Your task to perform on an android device: Open calendar and show me the second week of next month Image 0: 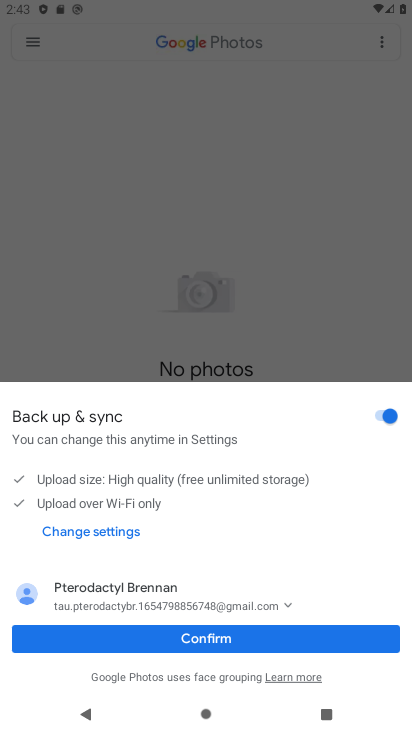
Step 0: press home button
Your task to perform on an android device: Open calendar and show me the second week of next month Image 1: 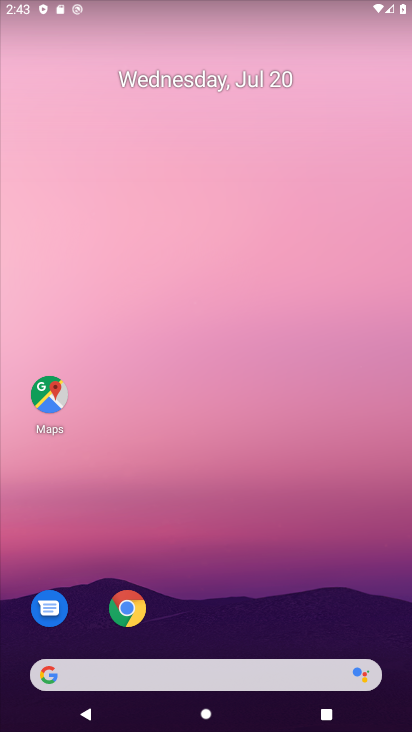
Step 1: drag from (223, 568) to (241, 34)
Your task to perform on an android device: Open calendar and show me the second week of next month Image 2: 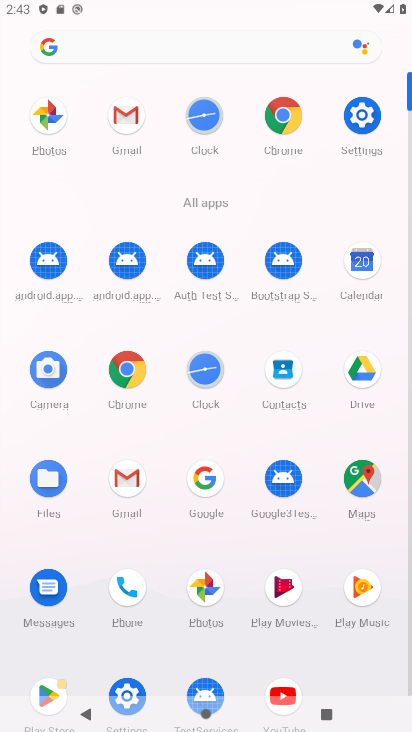
Step 2: click (367, 262)
Your task to perform on an android device: Open calendar and show me the second week of next month Image 3: 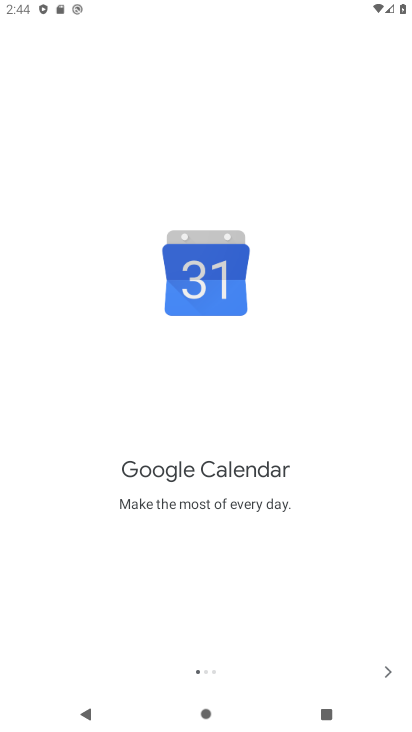
Step 3: click (385, 674)
Your task to perform on an android device: Open calendar and show me the second week of next month Image 4: 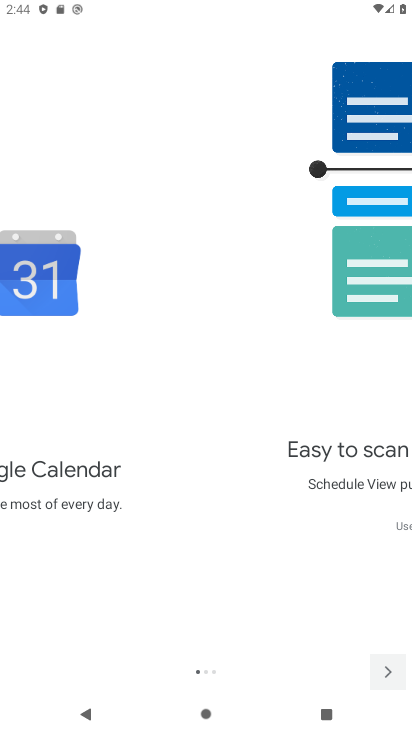
Step 4: click (385, 674)
Your task to perform on an android device: Open calendar and show me the second week of next month Image 5: 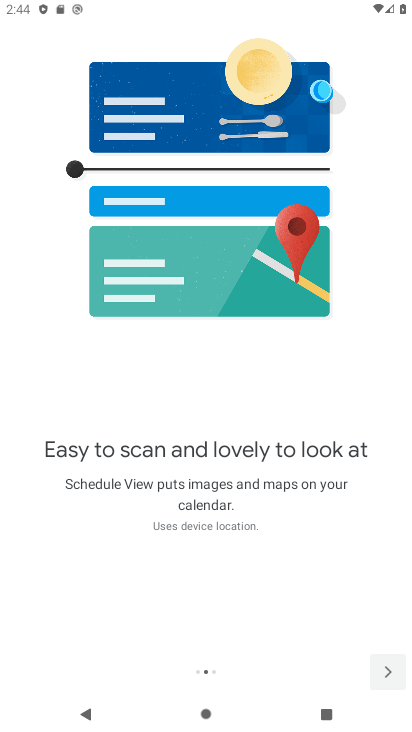
Step 5: click (385, 674)
Your task to perform on an android device: Open calendar and show me the second week of next month Image 6: 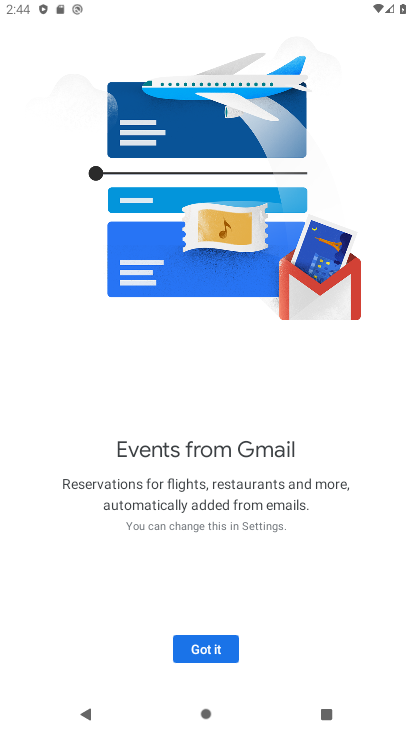
Step 6: click (385, 674)
Your task to perform on an android device: Open calendar and show me the second week of next month Image 7: 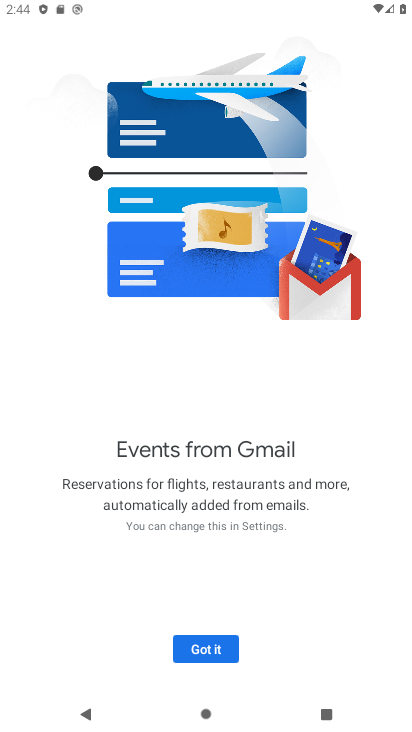
Step 7: click (212, 647)
Your task to perform on an android device: Open calendar and show me the second week of next month Image 8: 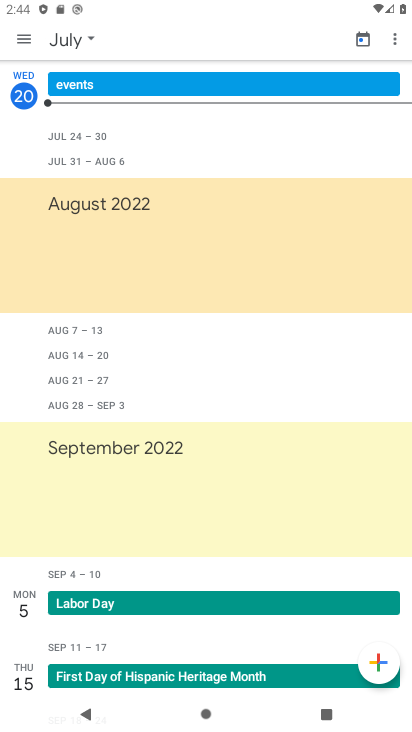
Step 8: click (75, 39)
Your task to perform on an android device: Open calendar and show me the second week of next month Image 9: 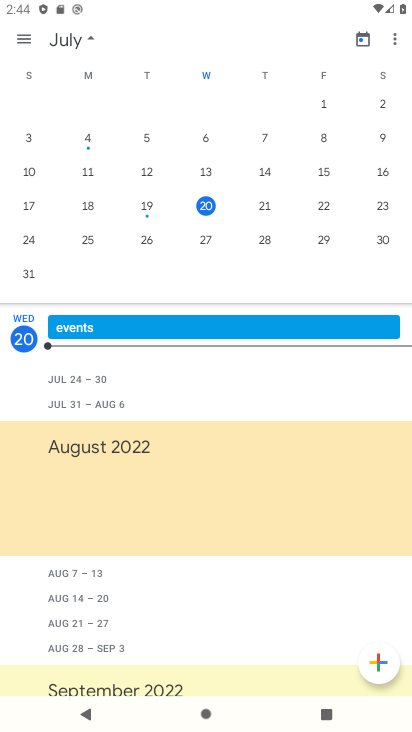
Step 9: drag from (387, 169) to (50, 163)
Your task to perform on an android device: Open calendar and show me the second week of next month Image 10: 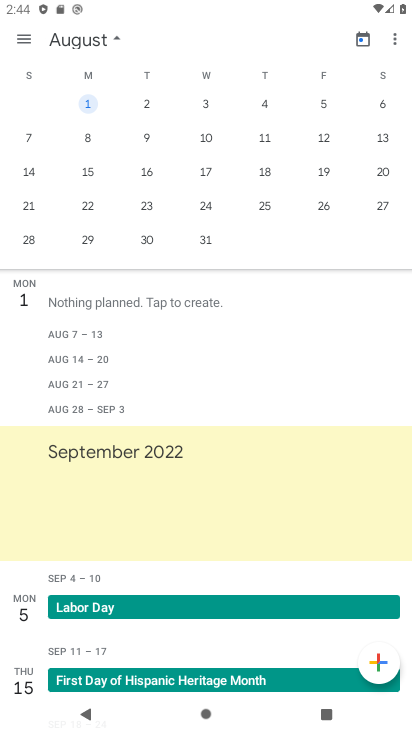
Step 10: click (206, 136)
Your task to perform on an android device: Open calendar and show me the second week of next month Image 11: 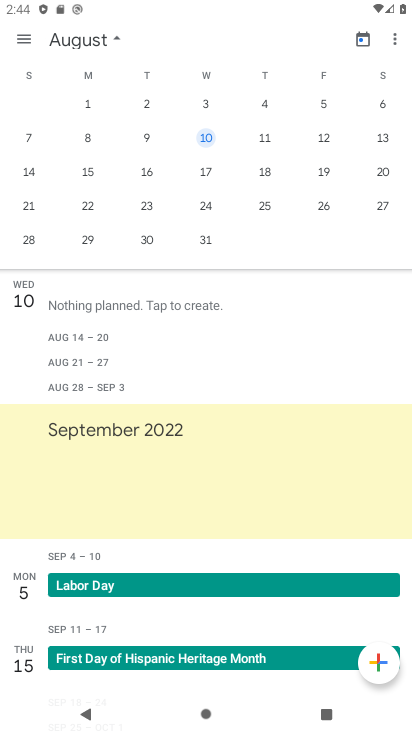
Step 11: task complete